Your task to perform on an android device: Check the news Image 0: 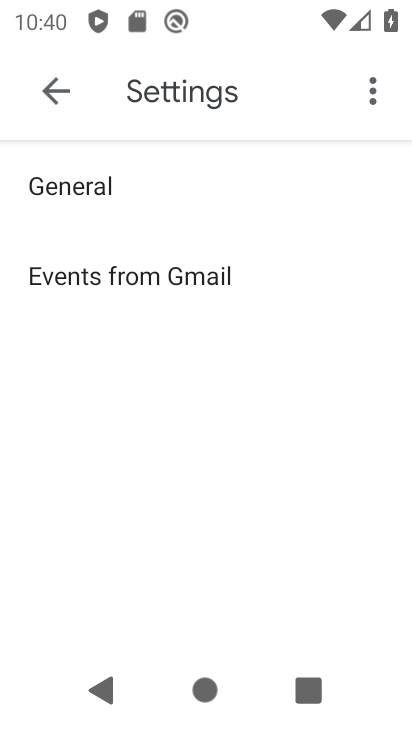
Step 0: press back button
Your task to perform on an android device: Check the news Image 1: 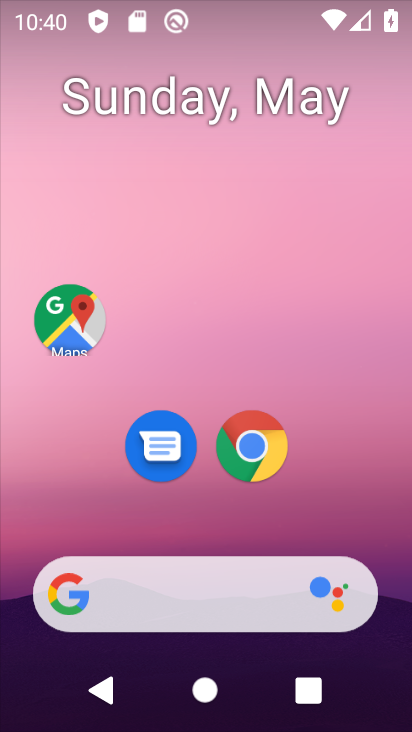
Step 1: task complete